Your task to perform on an android device: Go to notification settings Image 0: 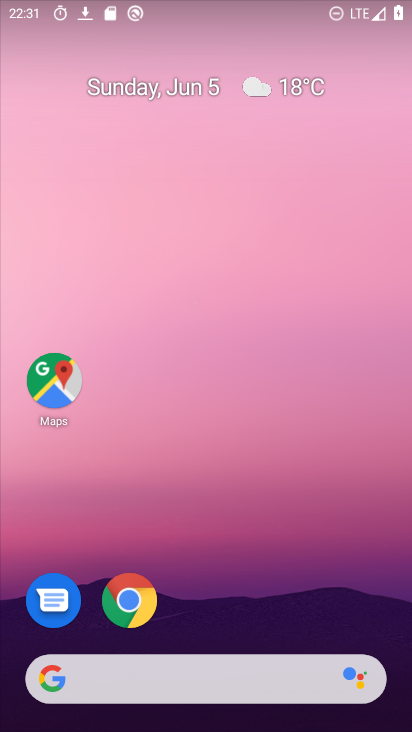
Step 0: drag from (318, 541) to (223, 116)
Your task to perform on an android device: Go to notification settings Image 1: 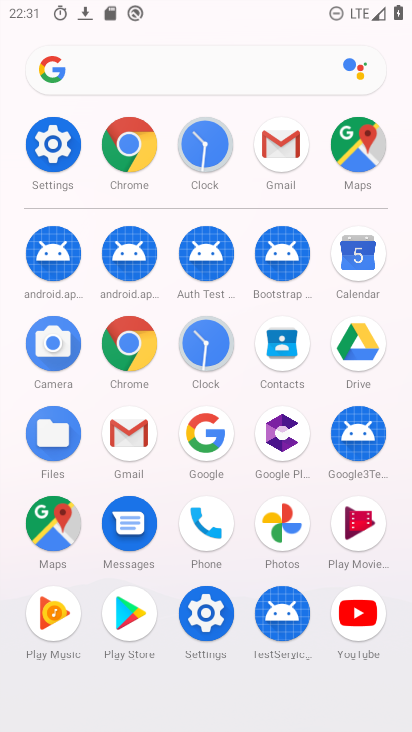
Step 1: click (62, 150)
Your task to perform on an android device: Go to notification settings Image 2: 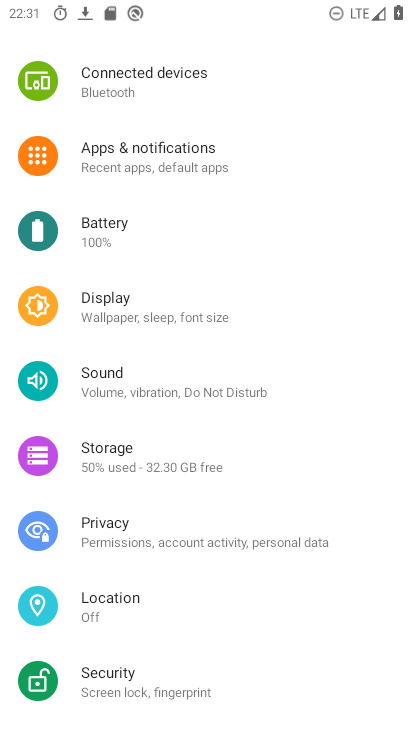
Step 2: click (161, 172)
Your task to perform on an android device: Go to notification settings Image 3: 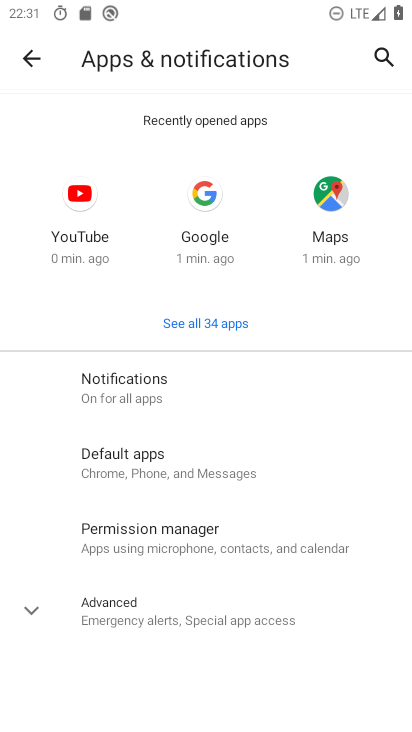
Step 3: click (117, 403)
Your task to perform on an android device: Go to notification settings Image 4: 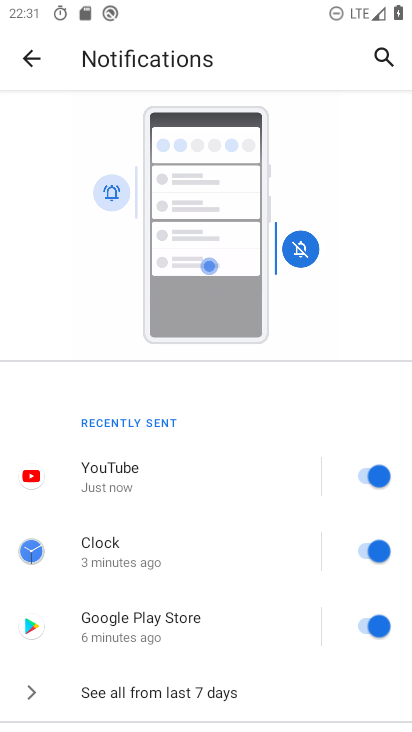
Step 4: task complete